Your task to perform on an android device: remove spam from my inbox in the gmail app Image 0: 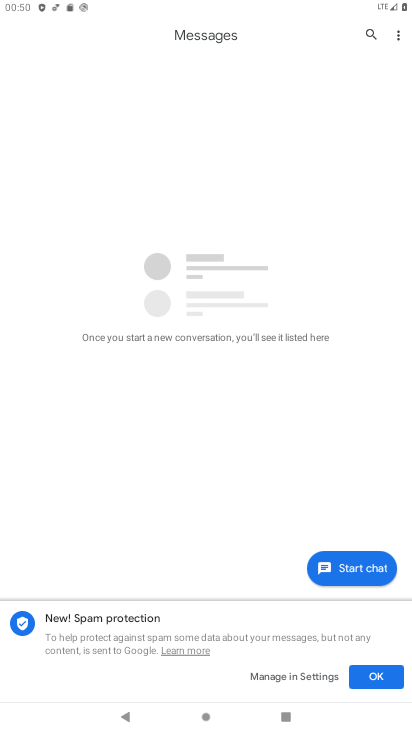
Step 0: press home button
Your task to perform on an android device: remove spam from my inbox in the gmail app Image 1: 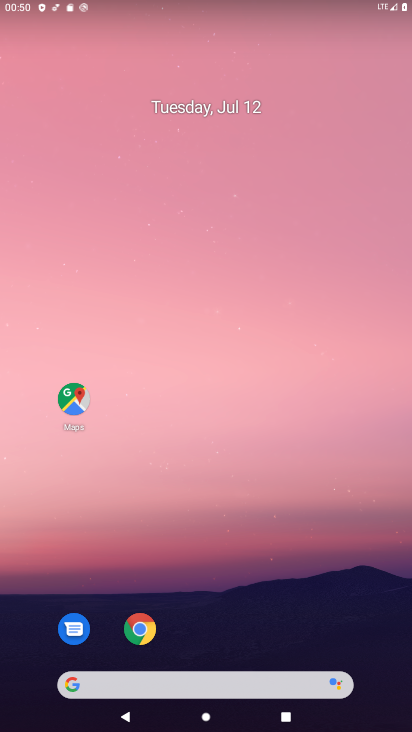
Step 1: drag from (9, 719) to (217, 189)
Your task to perform on an android device: remove spam from my inbox in the gmail app Image 2: 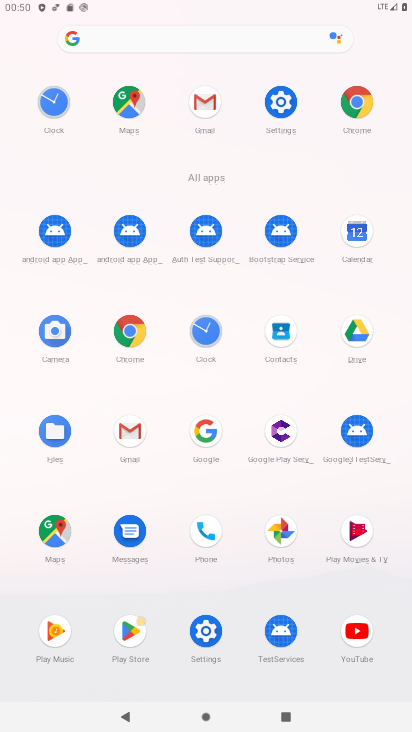
Step 2: click (134, 434)
Your task to perform on an android device: remove spam from my inbox in the gmail app Image 3: 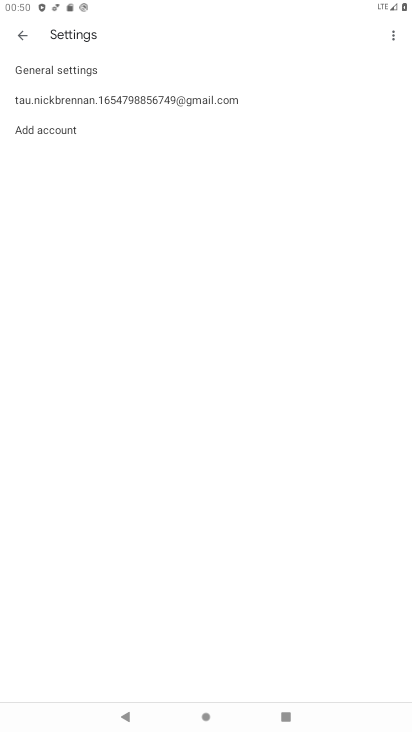
Step 3: click (27, 29)
Your task to perform on an android device: remove spam from my inbox in the gmail app Image 4: 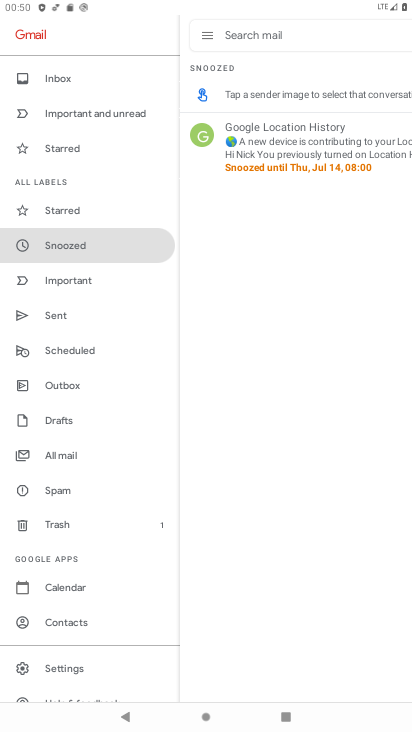
Step 4: click (64, 479)
Your task to perform on an android device: remove spam from my inbox in the gmail app Image 5: 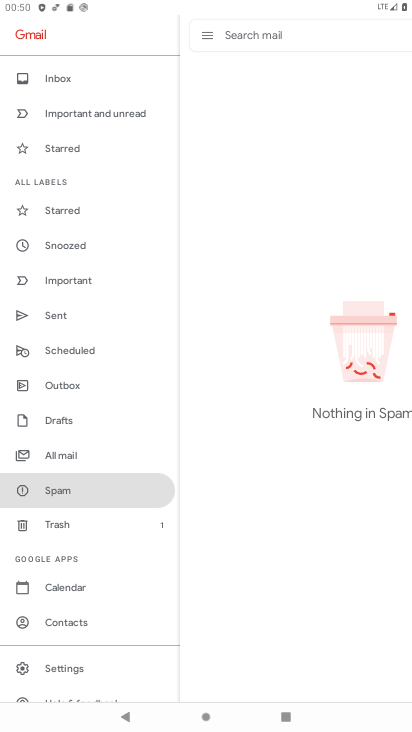
Step 5: task complete